Your task to perform on an android device: Open display settings Image 0: 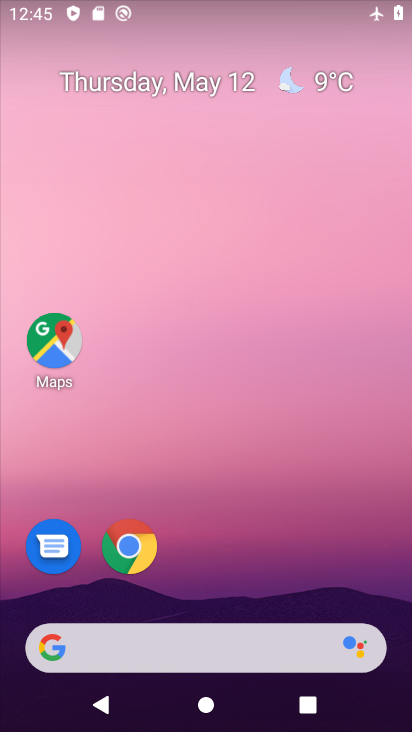
Step 0: press home button
Your task to perform on an android device: Open display settings Image 1: 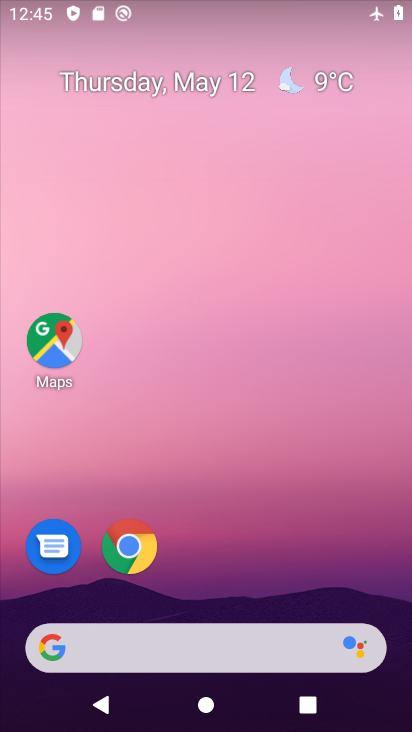
Step 1: drag from (289, 703) to (180, 219)
Your task to perform on an android device: Open display settings Image 2: 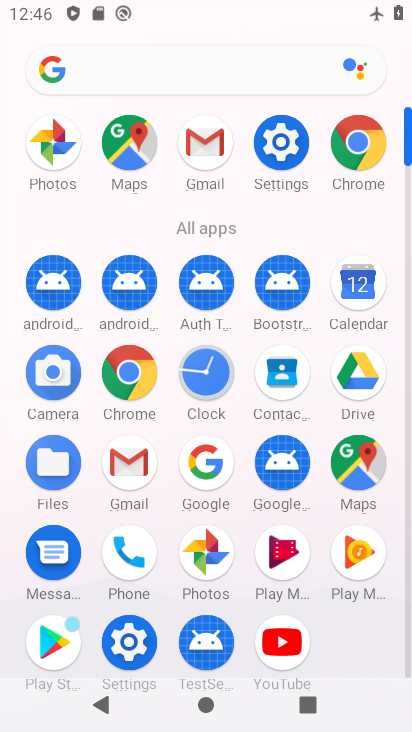
Step 2: click (284, 132)
Your task to perform on an android device: Open display settings Image 3: 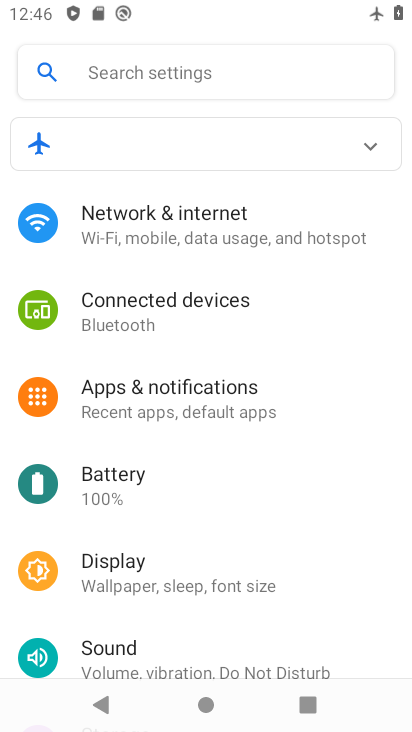
Step 3: click (137, 565)
Your task to perform on an android device: Open display settings Image 4: 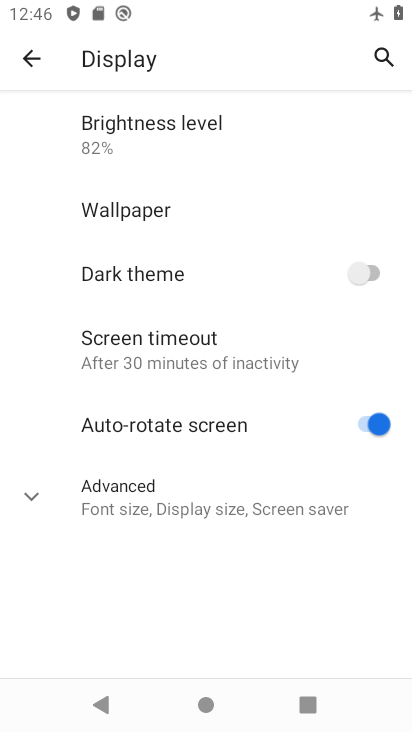
Step 4: task complete